Your task to perform on an android device: turn on showing notifications on the lock screen Image 0: 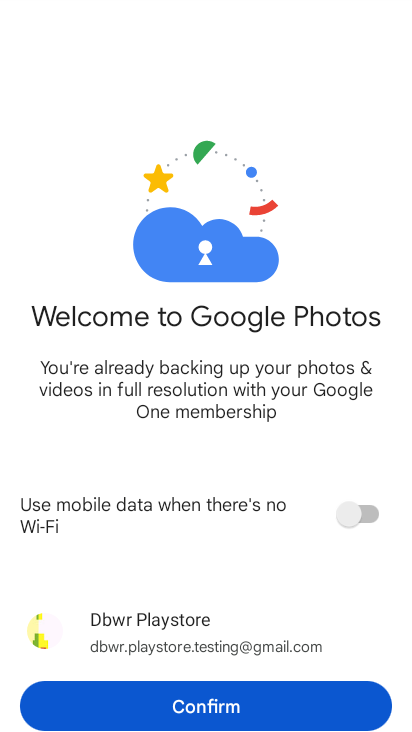
Step 0: drag from (282, 610) to (350, 0)
Your task to perform on an android device: turn on showing notifications on the lock screen Image 1: 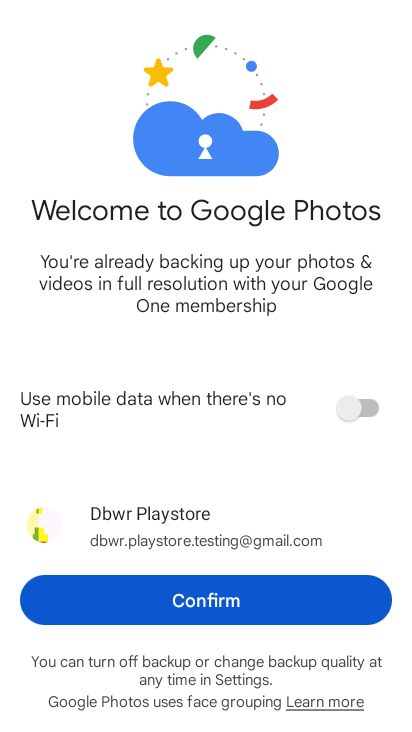
Step 1: drag from (230, 517) to (325, 68)
Your task to perform on an android device: turn on showing notifications on the lock screen Image 2: 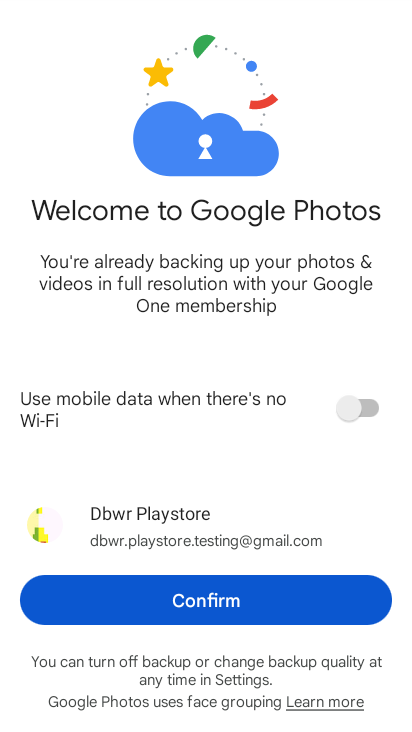
Step 2: drag from (220, 677) to (282, 236)
Your task to perform on an android device: turn on showing notifications on the lock screen Image 3: 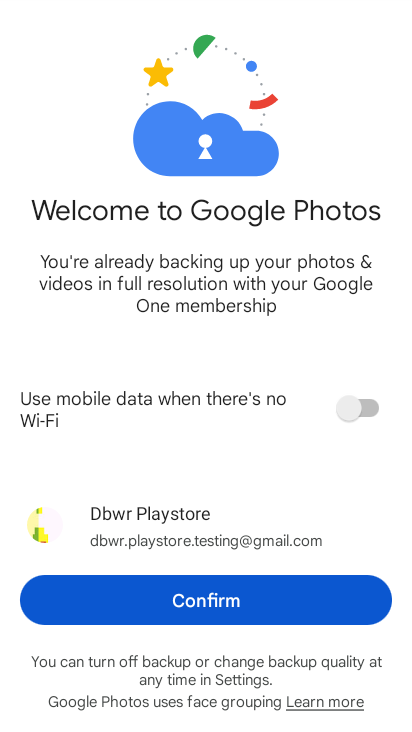
Step 3: drag from (247, 534) to (288, 117)
Your task to perform on an android device: turn on showing notifications on the lock screen Image 4: 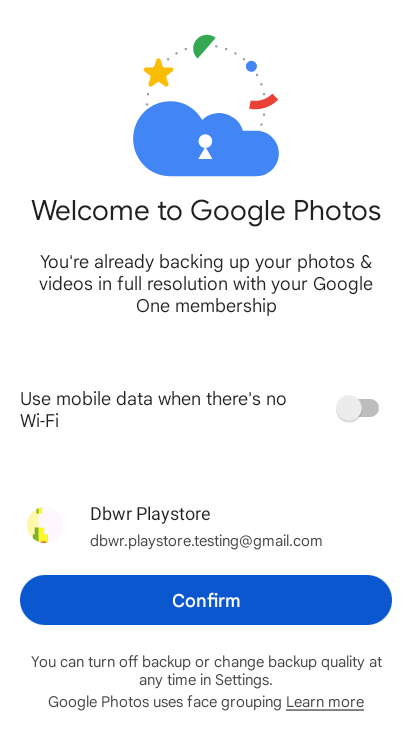
Step 4: drag from (265, 508) to (332, 219)
Your task to perform on an android device: turn on showing notifications on the lock screen Image 5: 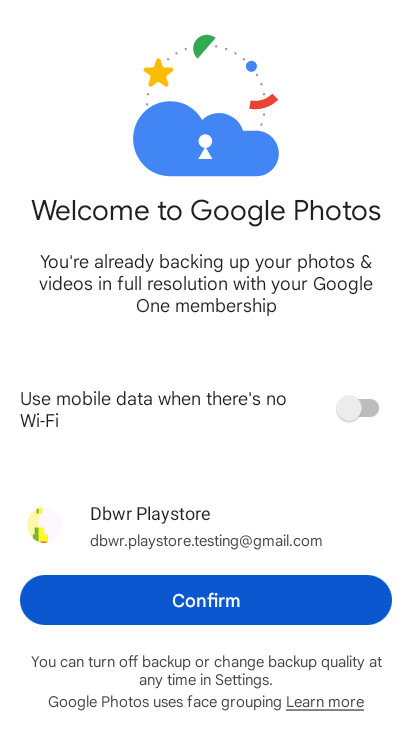
Step 5: drag from (279, 663) to (333, 240)
Your task to perform on an android device: turn on showing notifications on the lock screen Image 6: 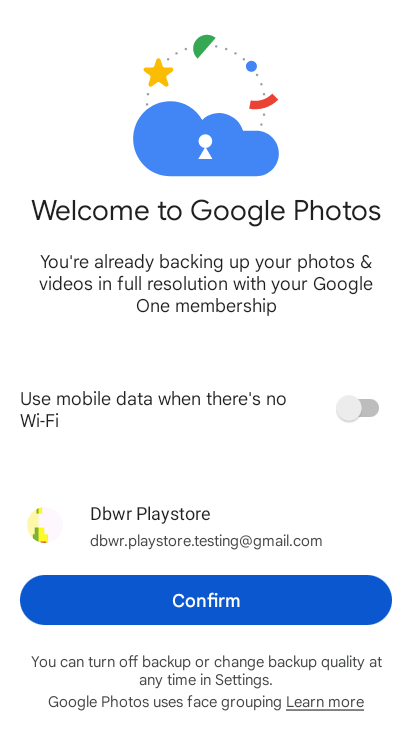
Step 6: press home button
Your task to perform on an android device: turn on showing notifications on the lock screen Image 7: 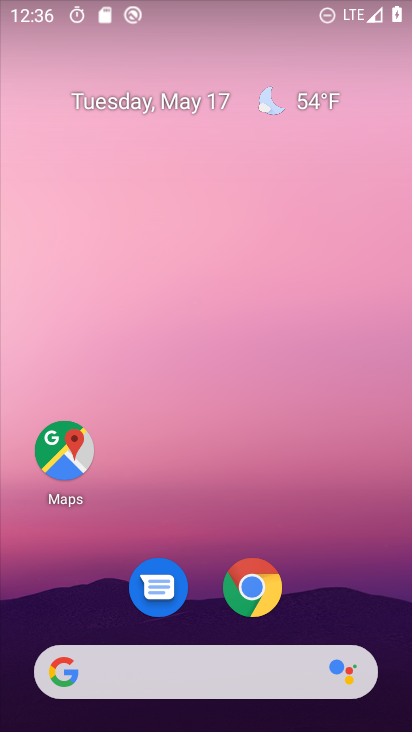
Step 7: drag from (187, 624) to (263, 3)
Your task to perform on an android device: turn on showing notifications on the lock screen Image 8: 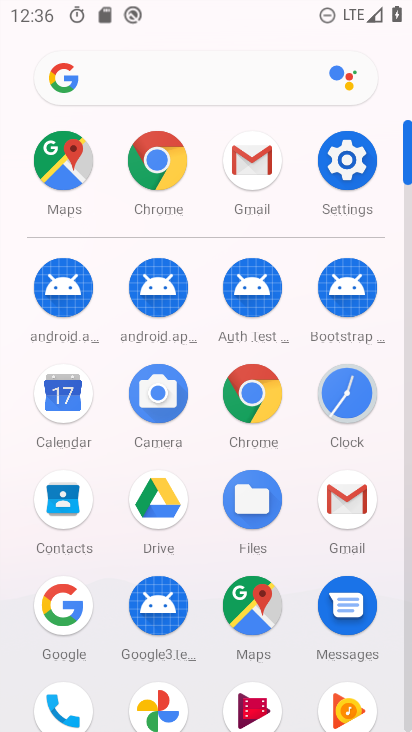
Step 8: click (354, 169)
Your task to perform on an android device: turn on showing notifications on the lock screen Image 9: 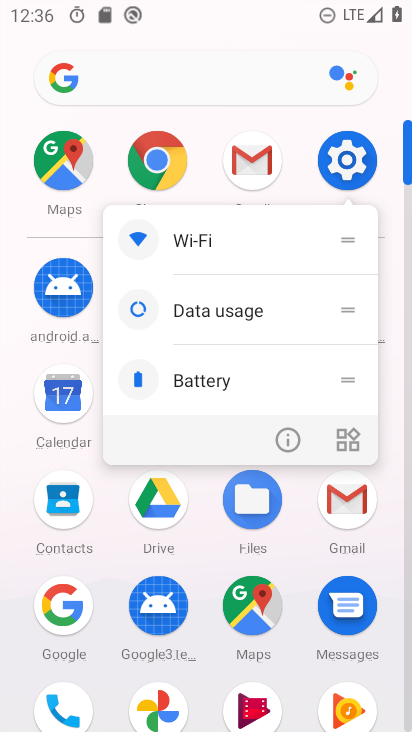
Step 9: click (281, 433)
Your task to perform on an android device: turn on showing notifications on the lock screen Image 10: 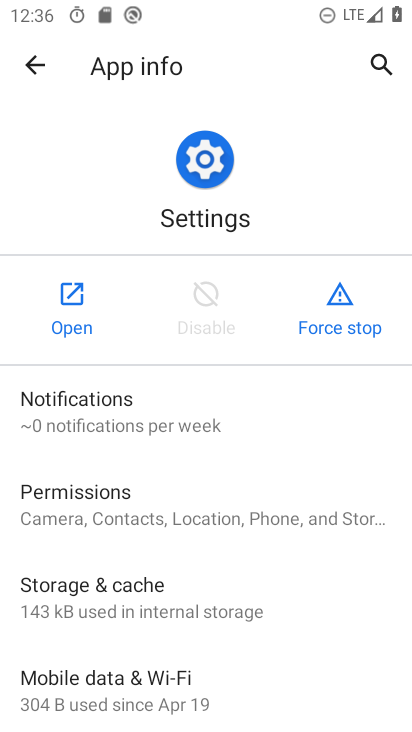
Step 10: click (87, 301)
Your task to perform on an android device: turn on showing notifications on the lock screen Image 11: 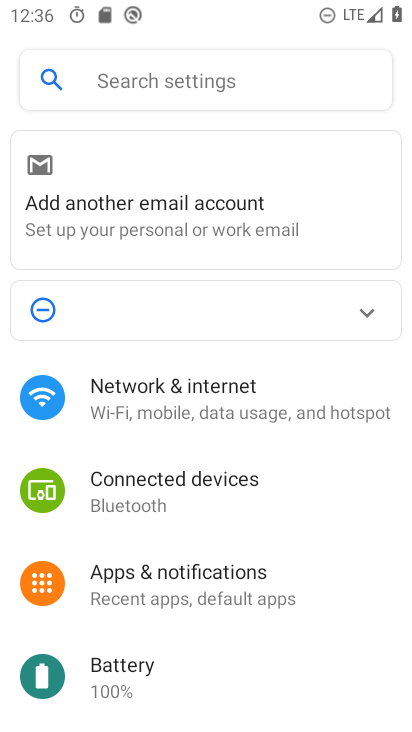
Step 11: drag from (267, 663) to (293, 160)
Your task to perform on an android device: turn on showing notifications on the lock screen Image 12: 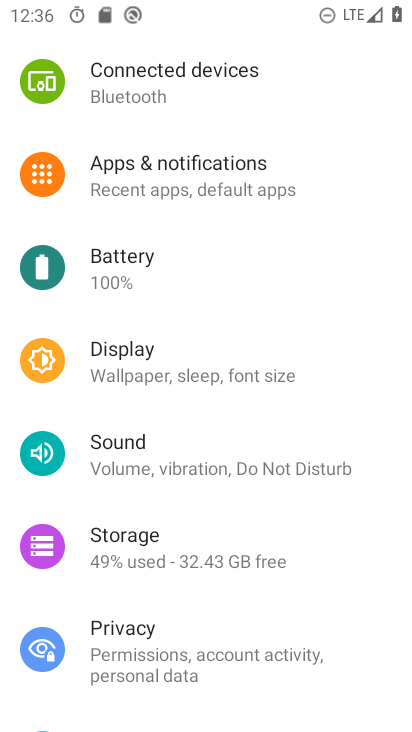
Step 12: click (222, 160)
Your task to perform on an android device: turn on showing notifications on the lock screen Image 13: 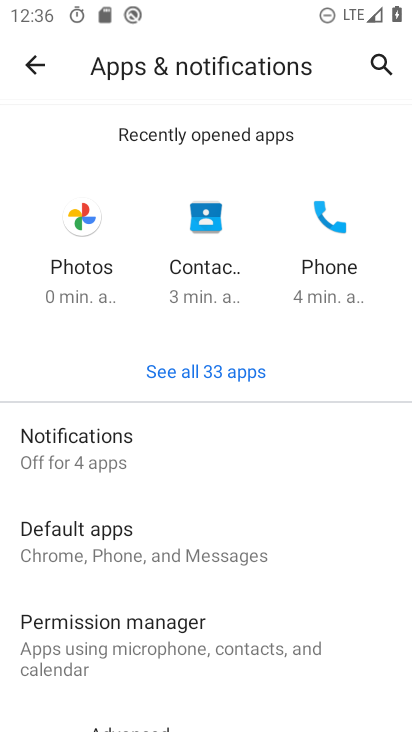
Step 13: drag from (197, 484) to (270, 126)
Your task to perform on an android device: turn on showing notifications on the lock screen Image 14: 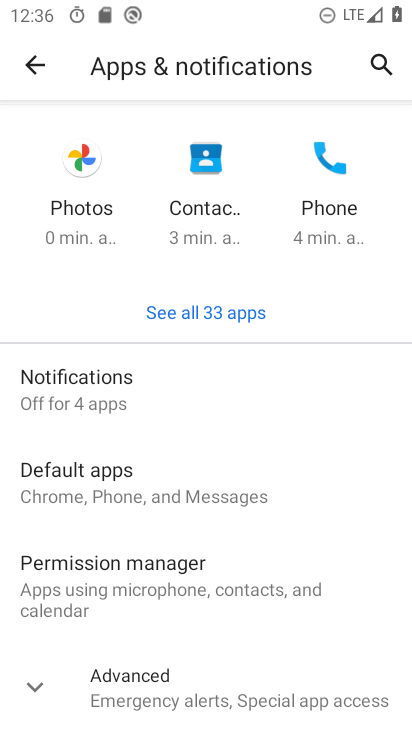
Step 14: click (177, 372)
Your task to perform on an android device: turn on showing notifications on the lock screen Image 15: 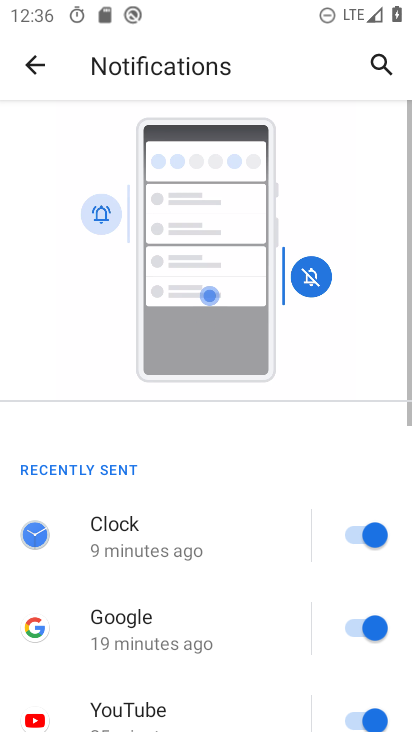
Step 15: drag from (219, 607) to (345, 59)
Your task to perform on an android device: turn on showing notifications on the lock screen Image 16: 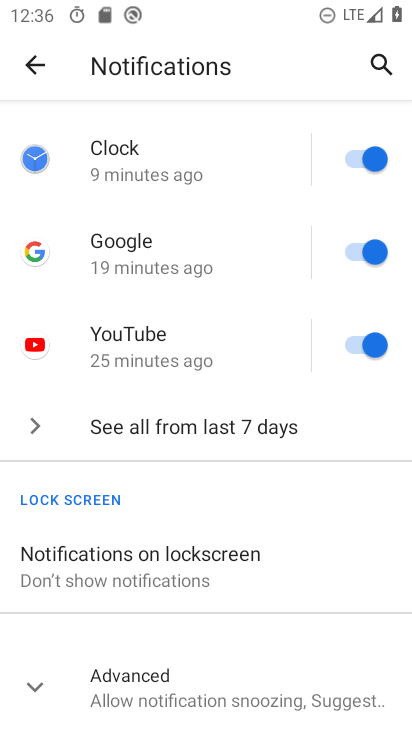
Step 16: click (139, 592)
Your task to perform on an android device: turn on showing notifications on the lock screen Image 17: 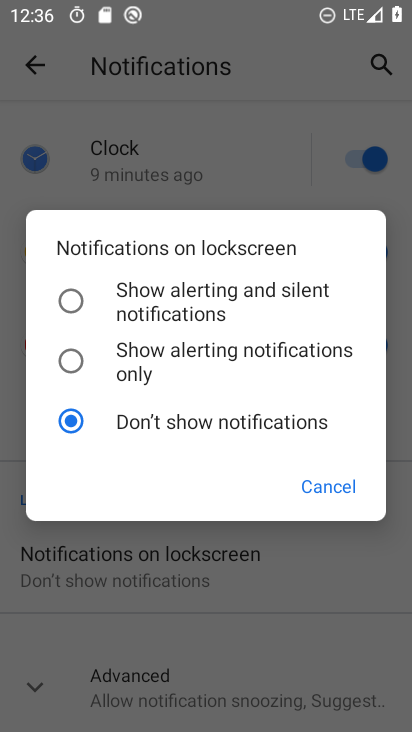
Step 17: click (150, 340)
Your task to perform on an android device: turn on showing notifications on the lock screen Image 18: 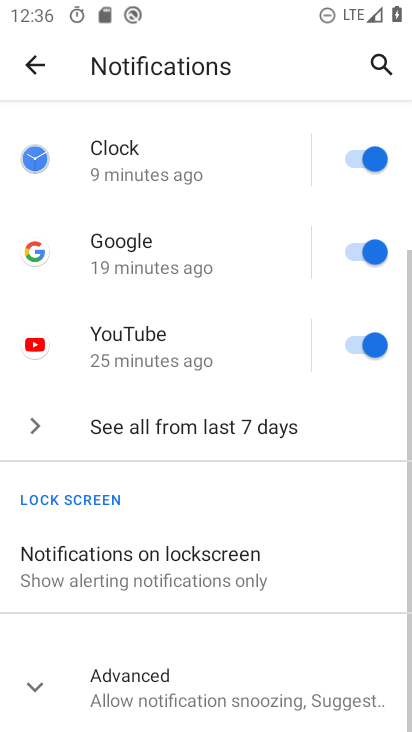
Step 18: task complete